Your task to perform on an android device: Search for Italian restaurants on Maps Image 0: 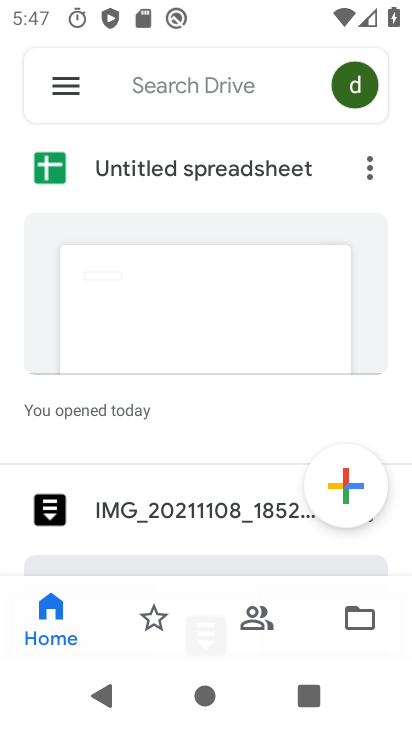
Step 0: press back button
Your task to perform on an android device: Search for Italian restaurants on Maps Image 1: 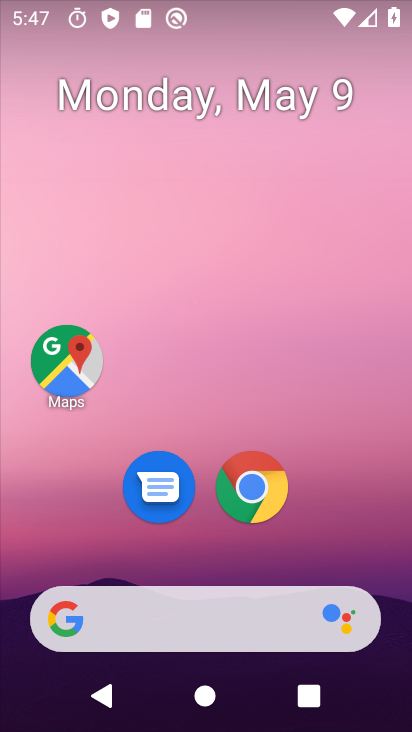
Step 1: click (113, 358)
Your task to perform on an android device: Search for Italian restaurants on Maps Image 2: 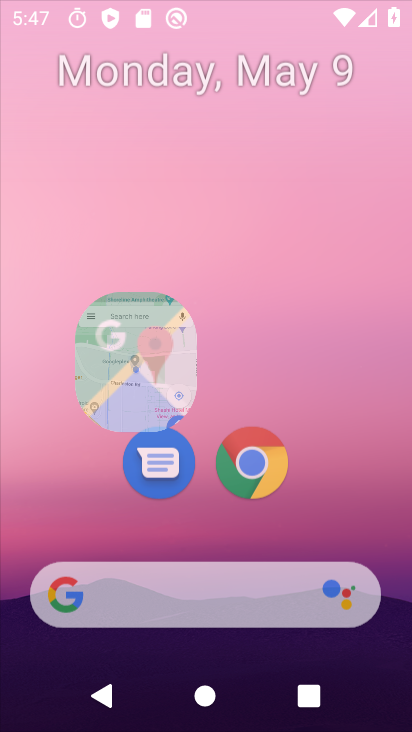
Step 2: click (70, 369)
Your task to perform on an android device: Search for Italian restaurants on Maps Image 3: 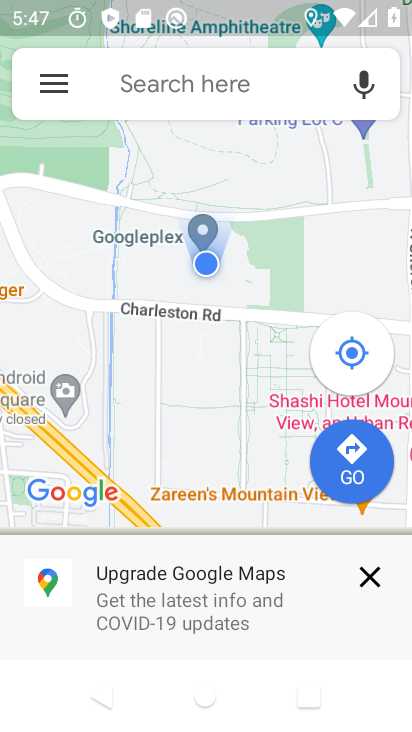
Step 3: click (381, 582)
Your task to perform on an android device: Search for Italian restaurants on Maps Image 4: 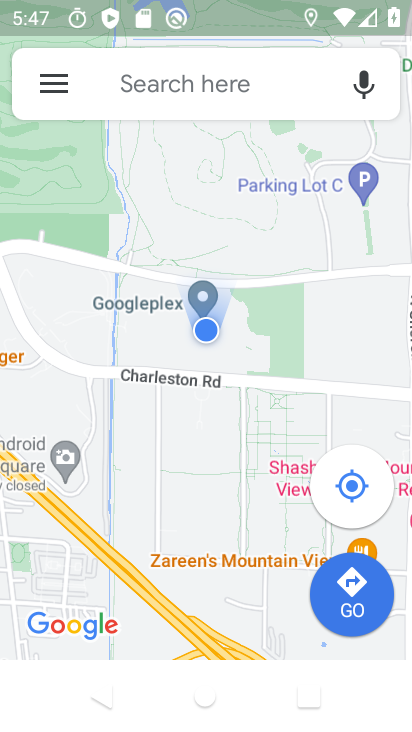
Step 4: click (200, 78)
Your task to perform on an android device: Search for Italian restaurants on Maps Image 5: 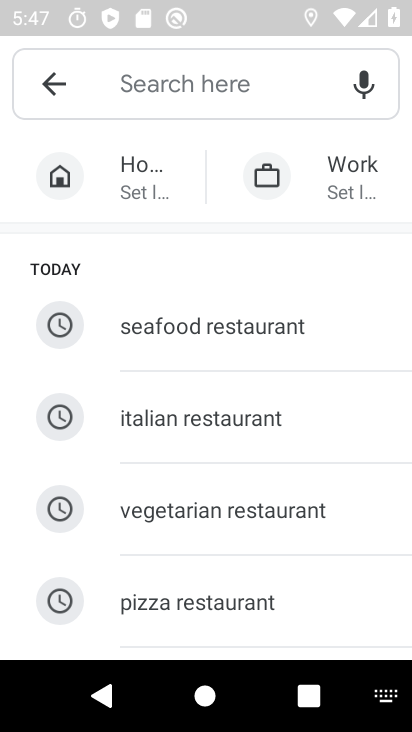
Step 5: drag from (211, 583) to (245, 402)
Your task to perform on an android device: Search for Italian restaurants on Maps Image 6: 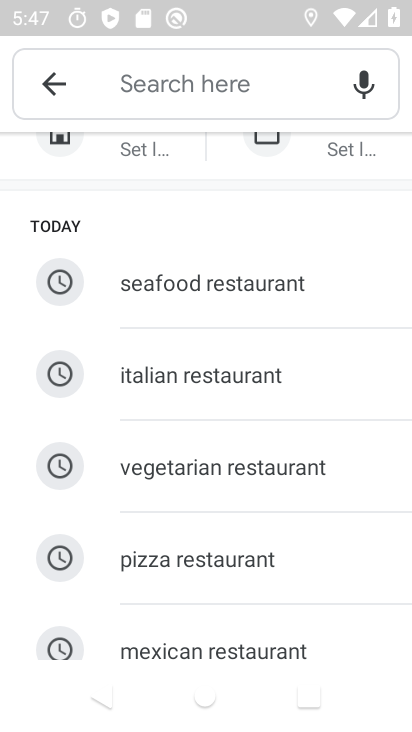
Step 6: click (204, 379)
Your task to perform on an android device: Search for Italian restaurants on Maps Image 7: 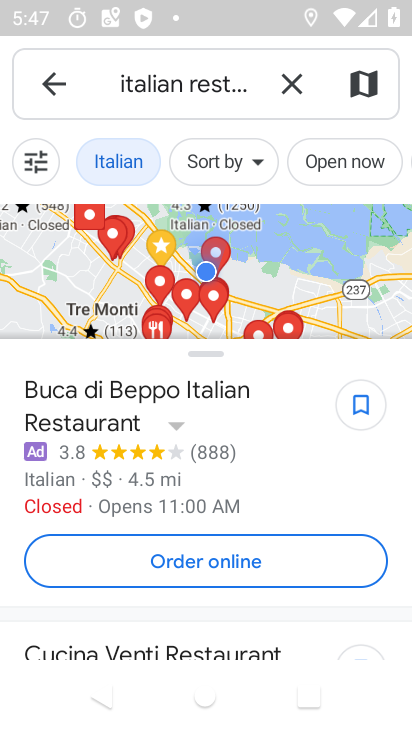
Step 7: task complete